Your task to perform on an android device: Open eBay Image 0: 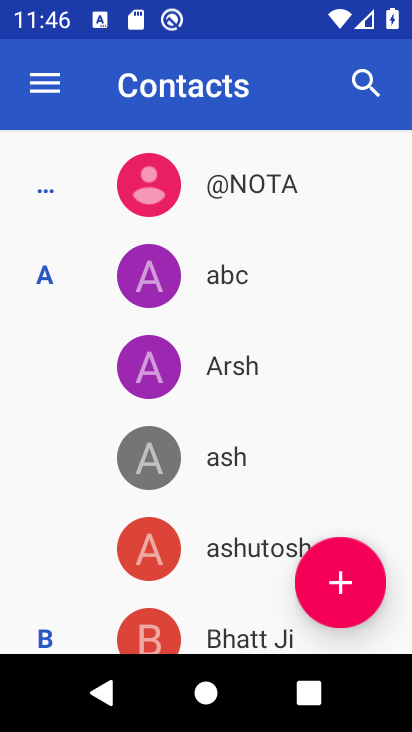
Step 0: press home button
Your task to perform on an android device: Open eBay Image 1: 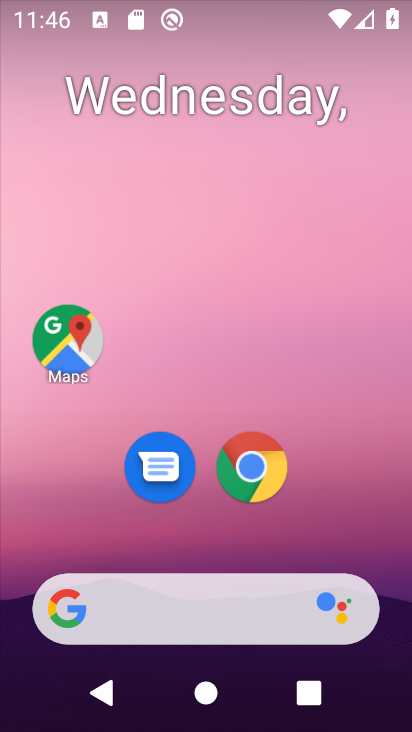
Step 1: click (189, 581)
Your task to perform on an android device: Open eBay Image 2: 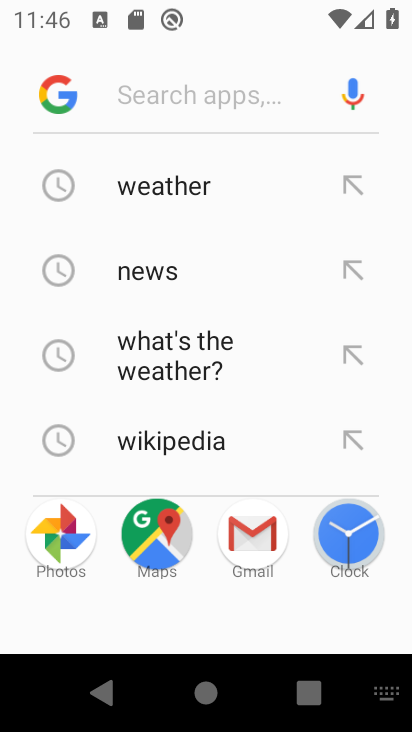
Step 2: type "eBay"
Your task to perform on an android device: Open eBay Image 3: 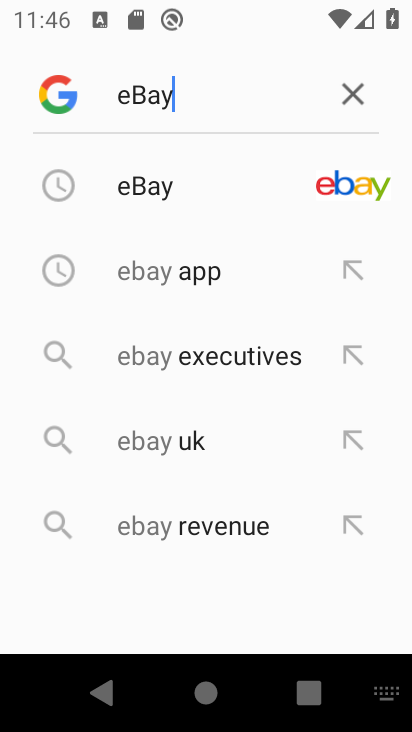
Step 3: click (160, 174)
Your task to perform on an android device: Open eBay Image 4: 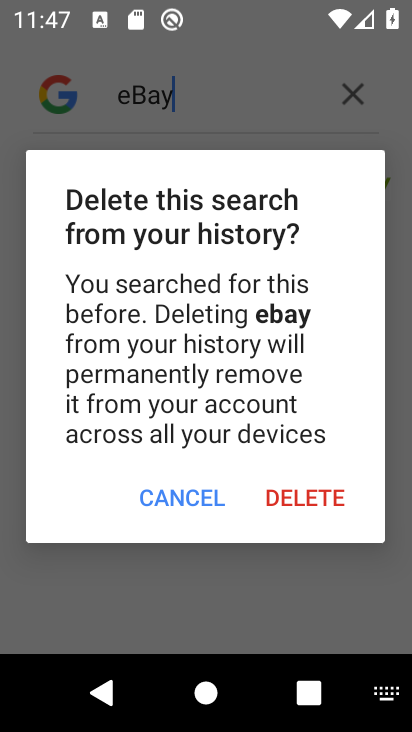
Step 4: click (180, 504)
Your task to perform on an android device: Open eBay Image 5: 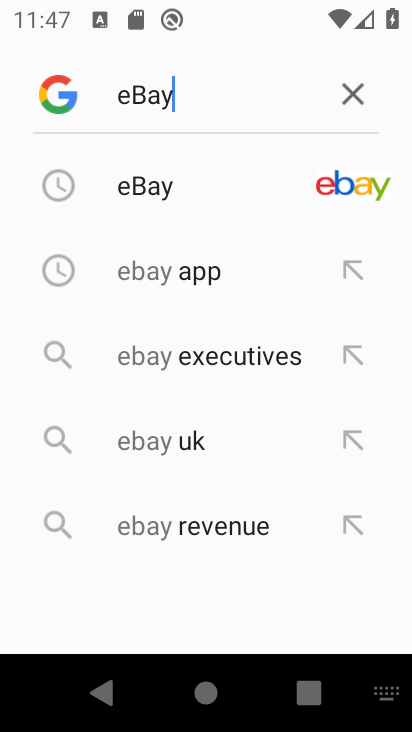
Step 5: click (175, 172)
Your task to perform on an android device: Open eBay Image 6: 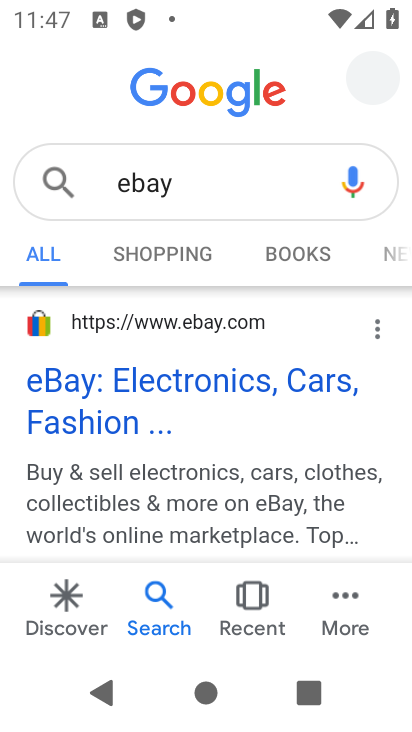
Step 6: click (104, 373)
Your task to perform on an android device: Open eBay Image 7: 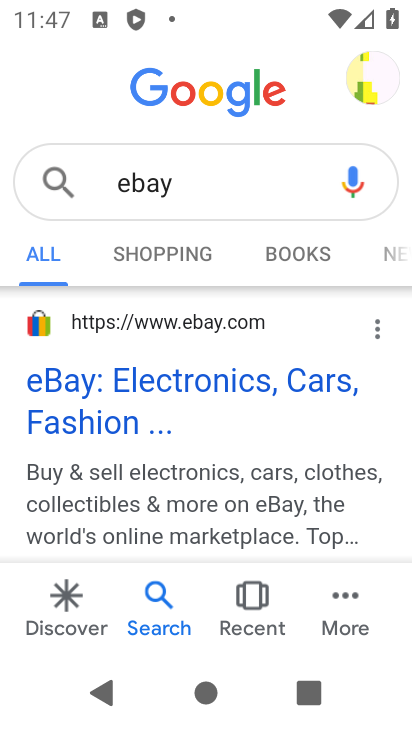
Step 7: click (153, 382)
Your task to perform on an android device: Open eBay Image 8: 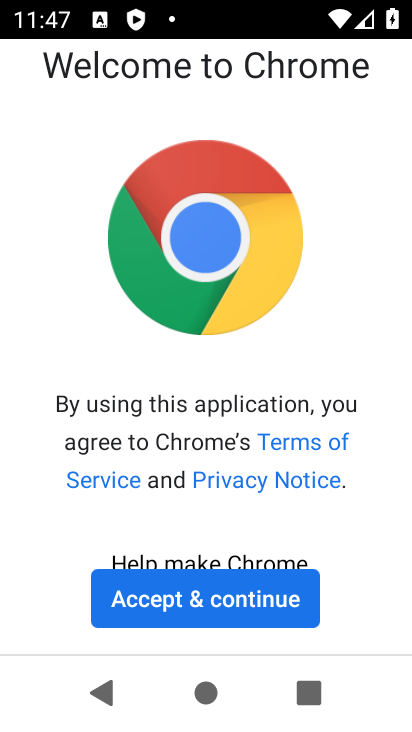
Step 8: task complete